Your task to perform on an android device: turn on the 12-hour format for clock Image 0: 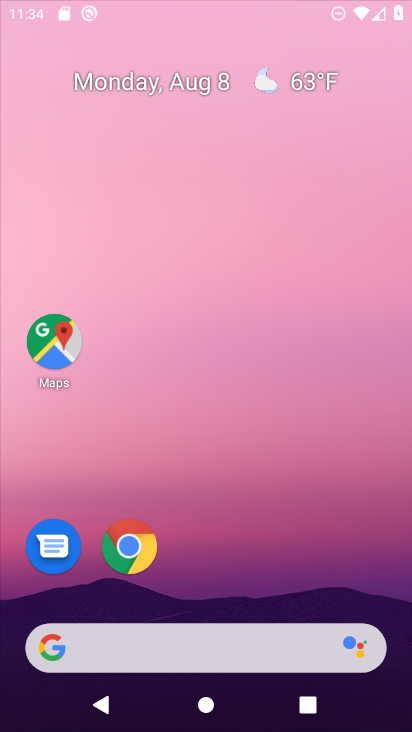
Step 0: press home button
Your task to perform on an android device: turn on the 12-hour format for clock Image 1: 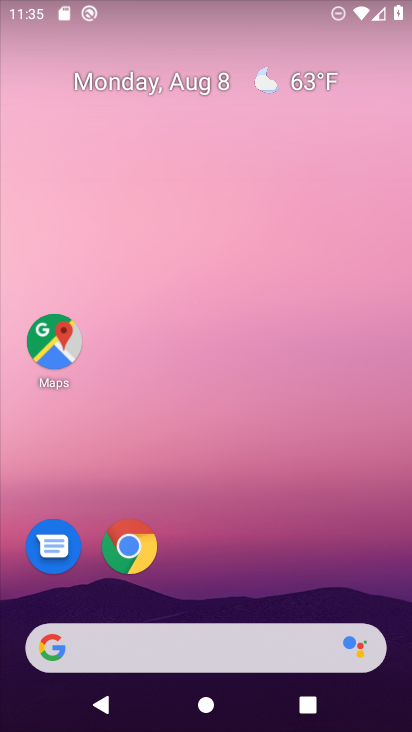
Step 1: drag from (216, 602) to (242, 15)
Your task to perform on an android device: turn on the 12-hour format for clock Image 2: 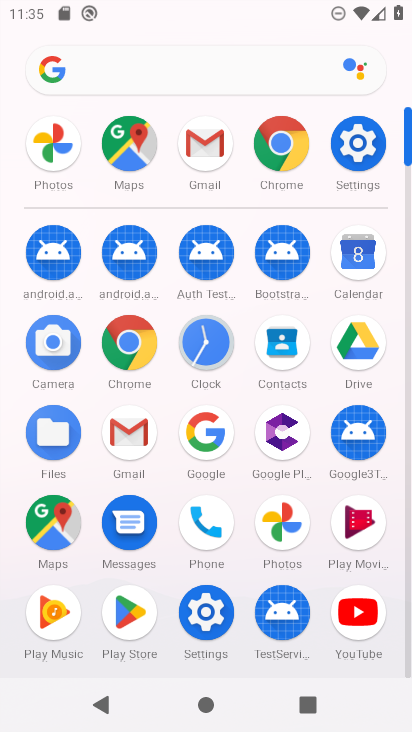
Step 2: click (205, 337)
Your task to perform on an android device: turn on the 12-hour format for clock Image 3: 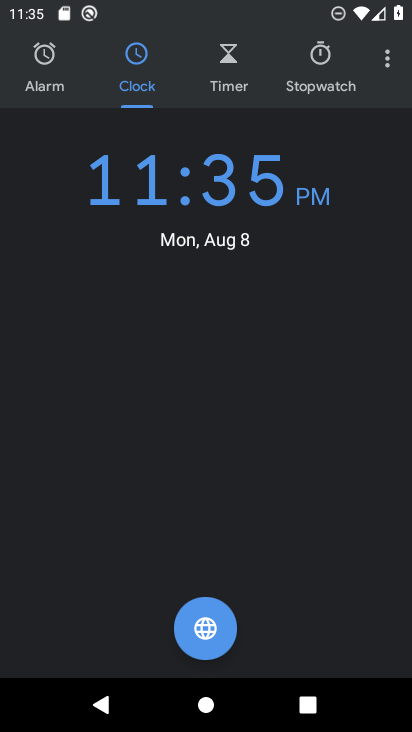
Step 3: click (387, 60)
Your task to perform on an android device: turn on the 12-hour format for clock Image 4: 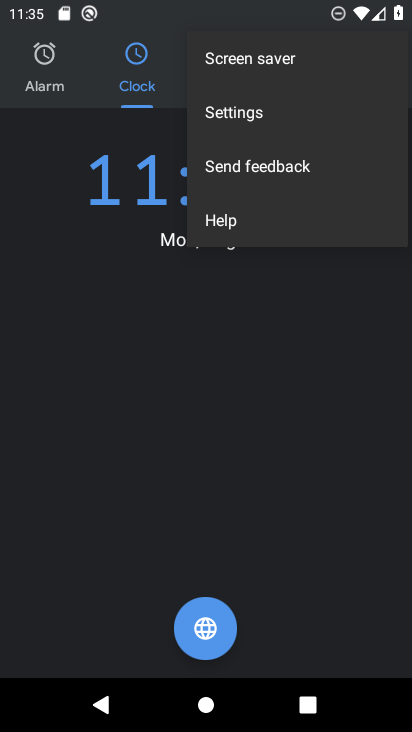
Step 4: click (274, 114)
Your task to perform on an android device: turn on the 12-hour format for clock Image 5: 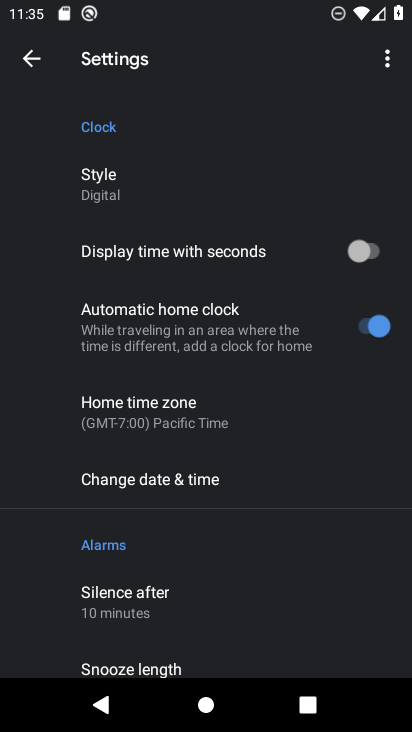
Step 5: click (238, 479)
Your task to perform on an android device: turn on the 12-hour format for clock Image 6: 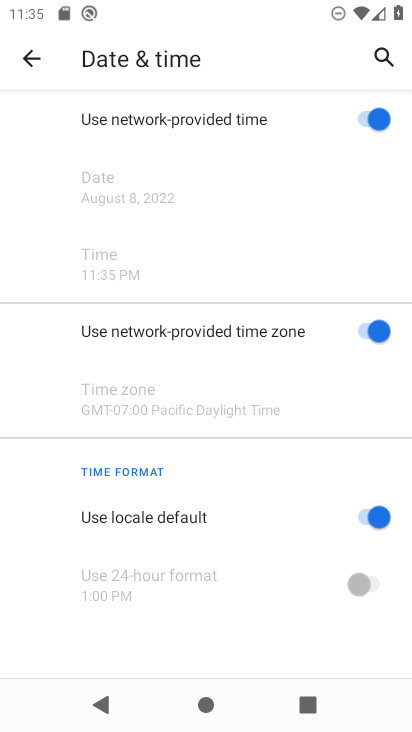
Step 6: task complete